Your task to perform on an android device: What's on my calendar tomorrow? Image 0: 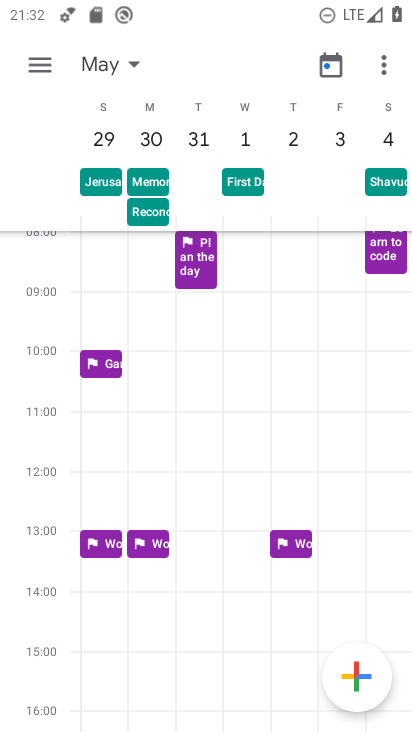
Step 0: click (42, 71)
Your task to perform on an android device: What's on my calendar tomorrow? Image 1: 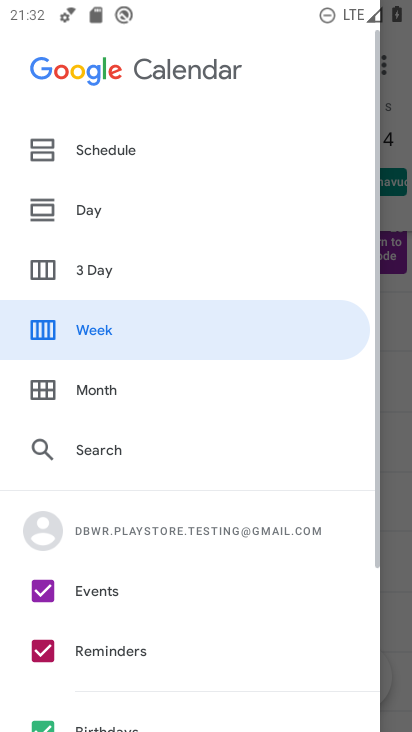
Step 1: click (400, 170)
Your task to perform on an android device: What's on my calendar tomorrow? Image 2: 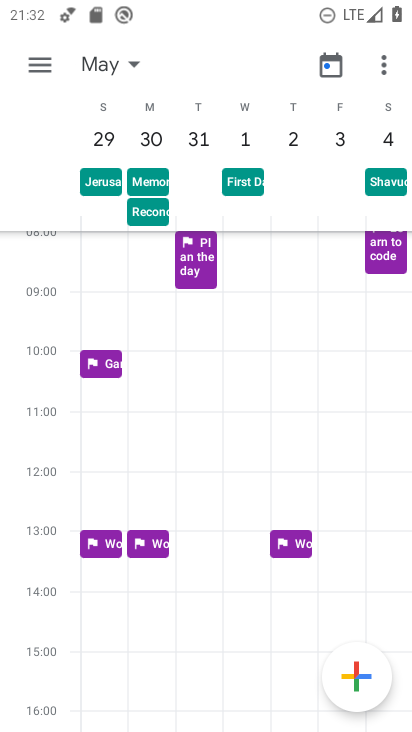
Step 2: click (116, 76)
Your task to perform on an android device: What's on my calendar tomorrow? Image 3: 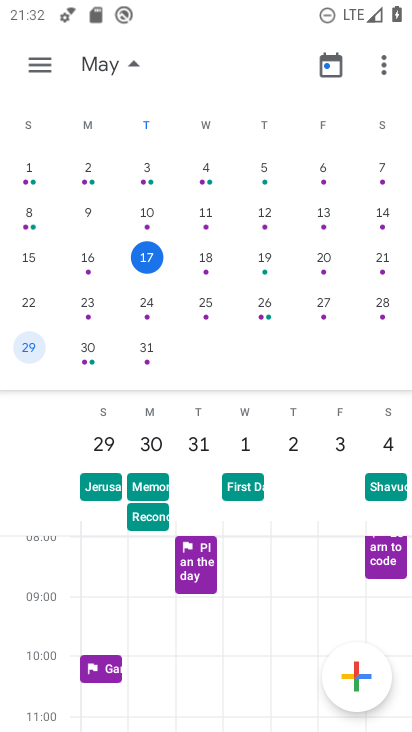
Step 3: click (203, 264)
Your task to perform on an android device: What's on my calendar tomorrow? Image 4: 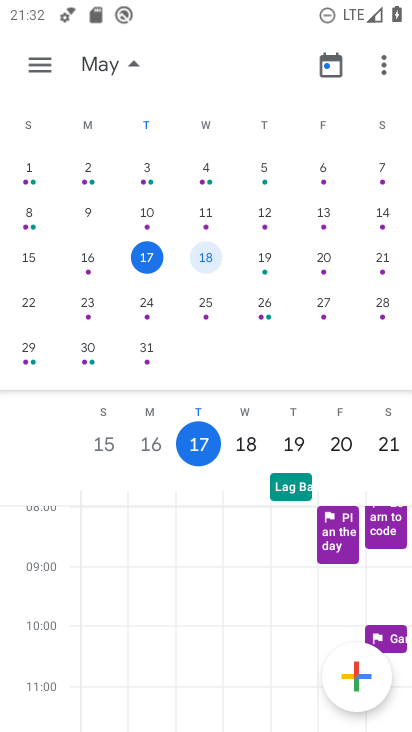
Step 4: click (204, 263)
Your task to perform on an android device: What's on my calendar tomorrow? Image 5: 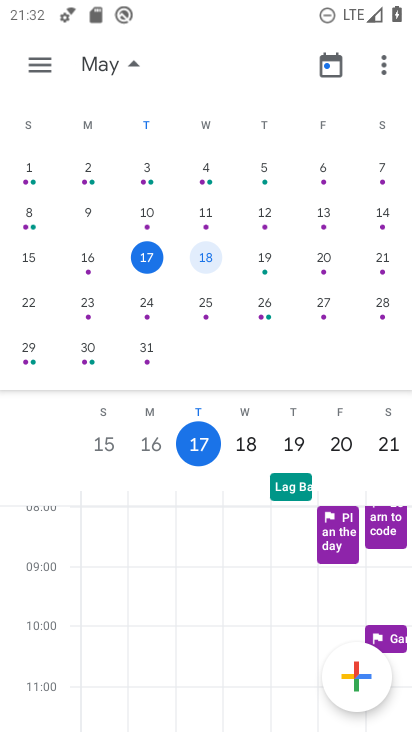
Step 5: click (242, 452)
Your task to perform on an android device: What's on my calendar tomorrow? Image 6: 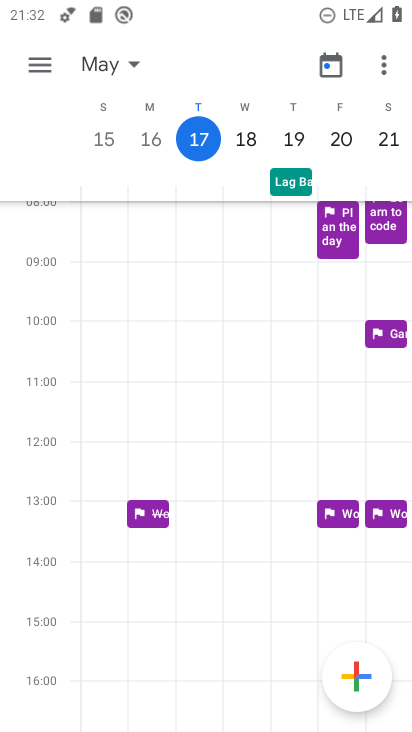
Step 6: click (242, 150)
Your task to perform on an android device: What's on my calendar tomorrow? Image 7: 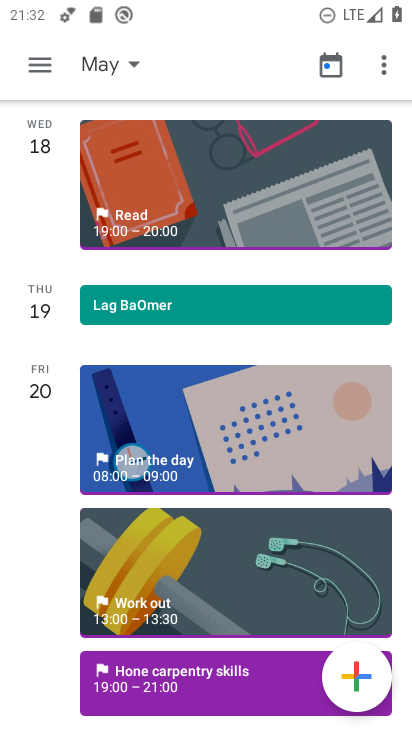
Step 7: drag from (224, 477) to (275, 493)
Your task to perform on an android device: What's on my calendar tomorrow? Image 8: 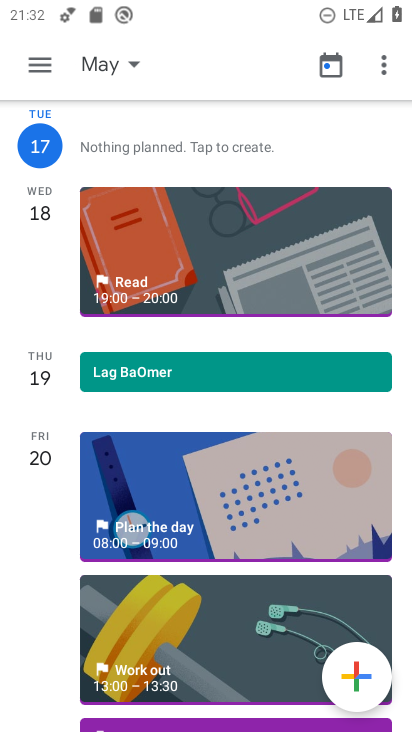
Step 8: click (158, 247)
Your task to perform on an android device: What's on my calendar tomorrow? Image 9: 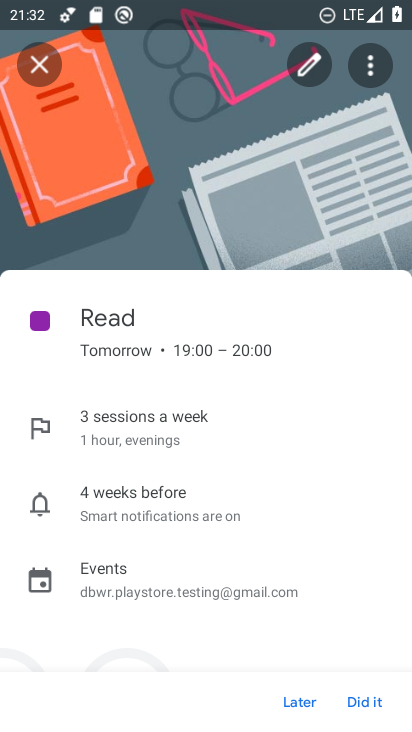
Step 9: task complete